Your task to perform on an android device: open app "LiveIn - Share Your Moment" Image 0: 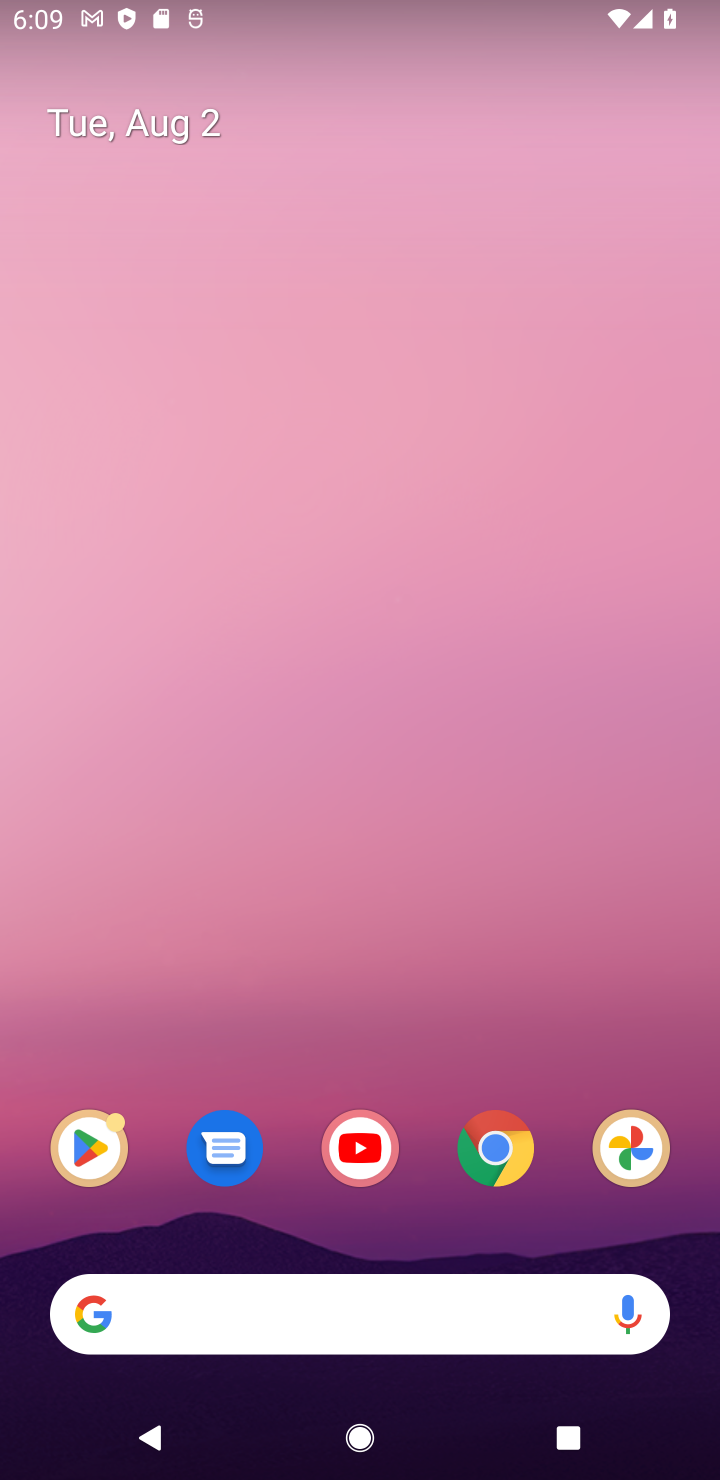
Step 0: drag from (670, 1000) to (422, 76)
Your task to perform on an android device: open app "LiveIn - Share Your Moment" Image 1: 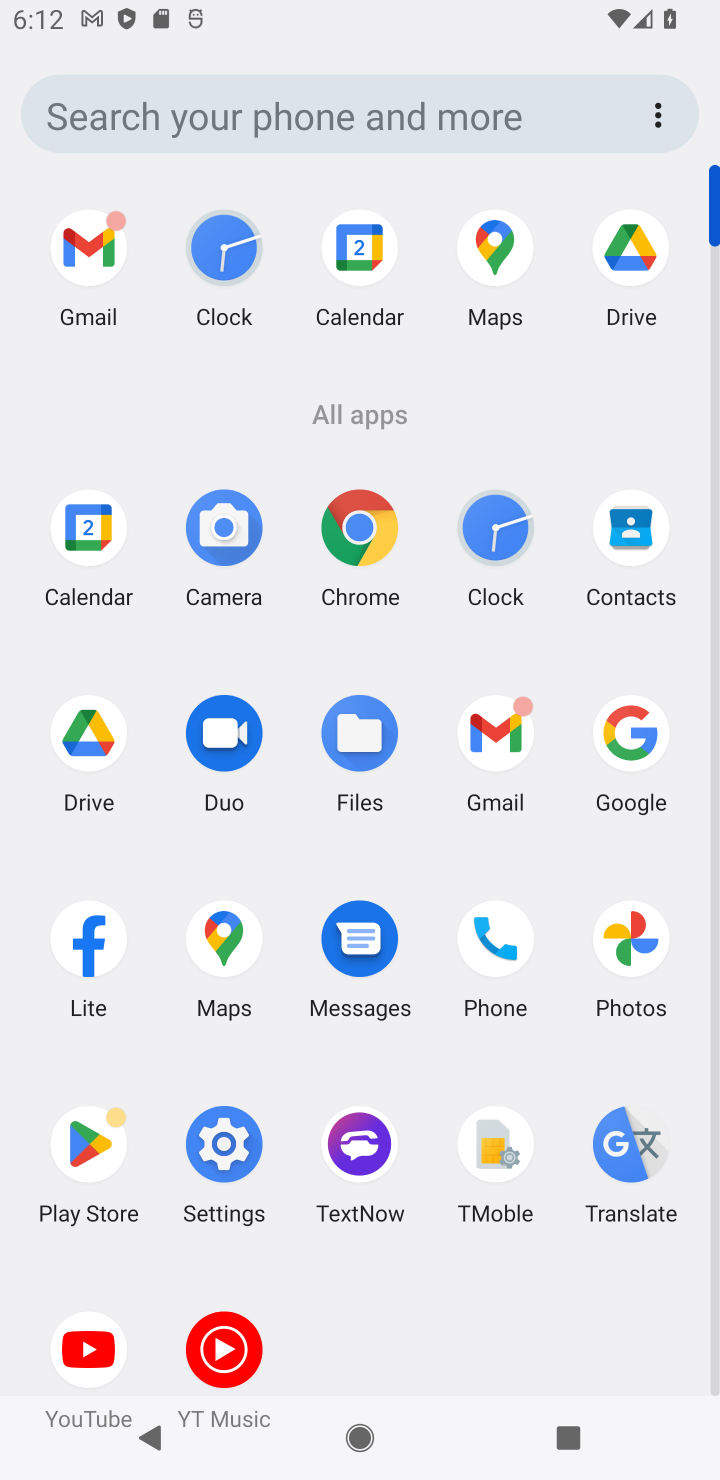
Step 1: click (66, 1153)
Your task to perform on an android device: open app "LiveIn - Share Your Moment" Image 2: 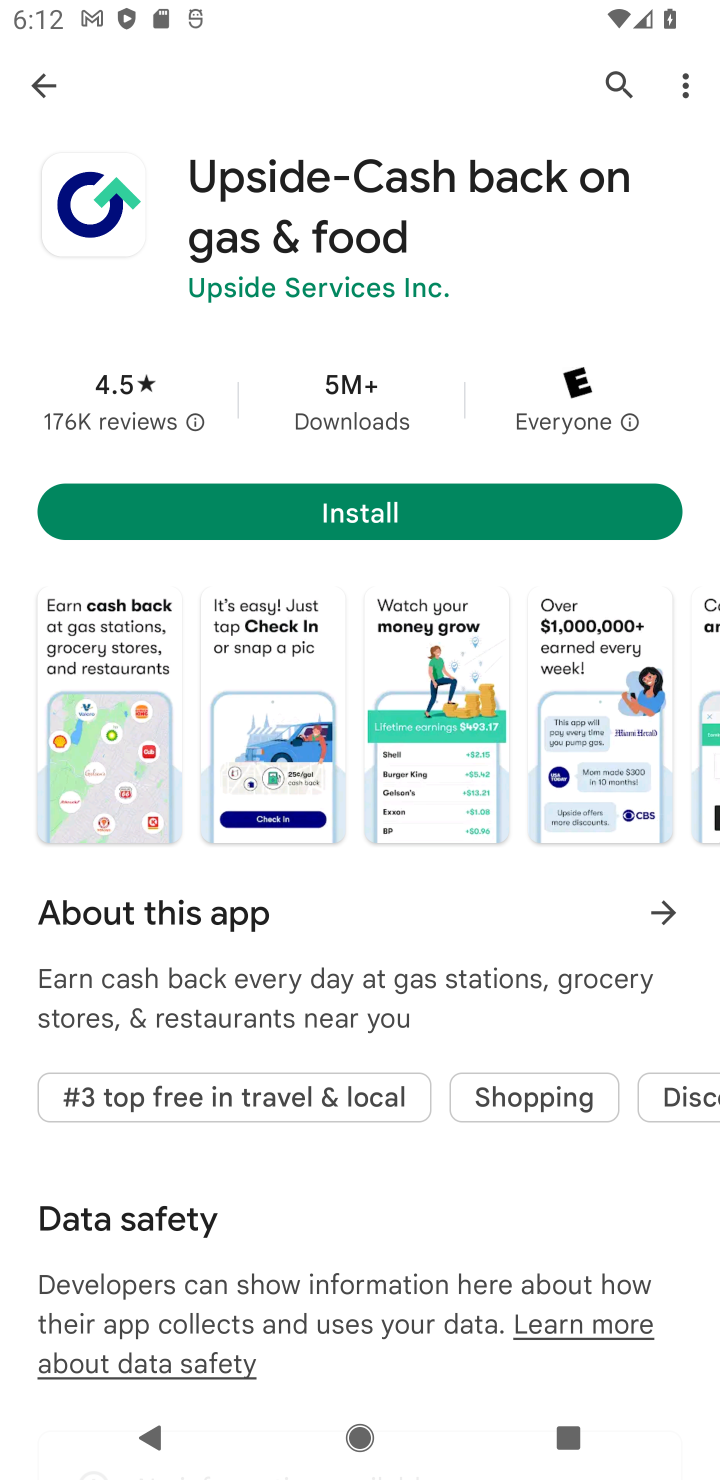
Step 2: press back button
Your task to perform on an android device: open app "LiveIn - Share Your Moment" Image 3: 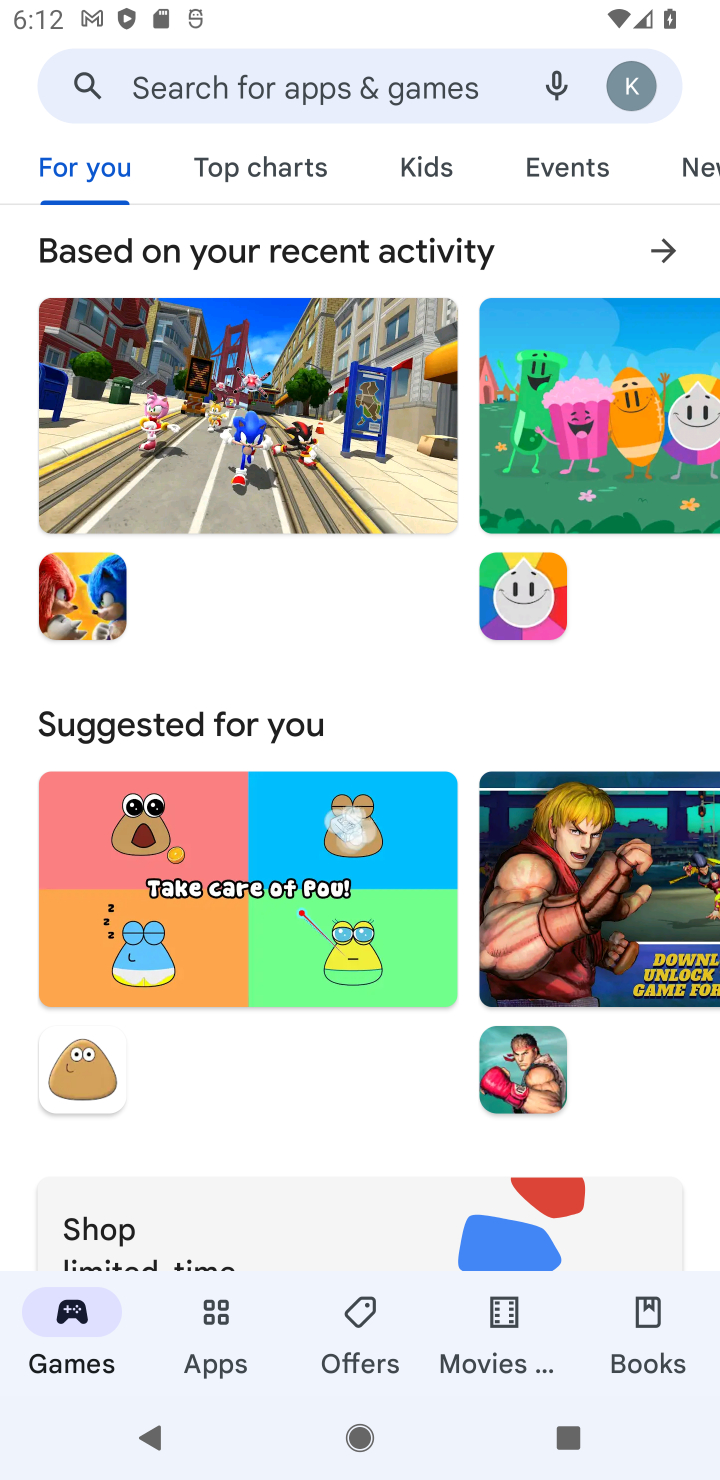
Step 3: click (213, 74)
Your task to perform on an android device: open app "LiveIn - Share Your Moment" Image 4: 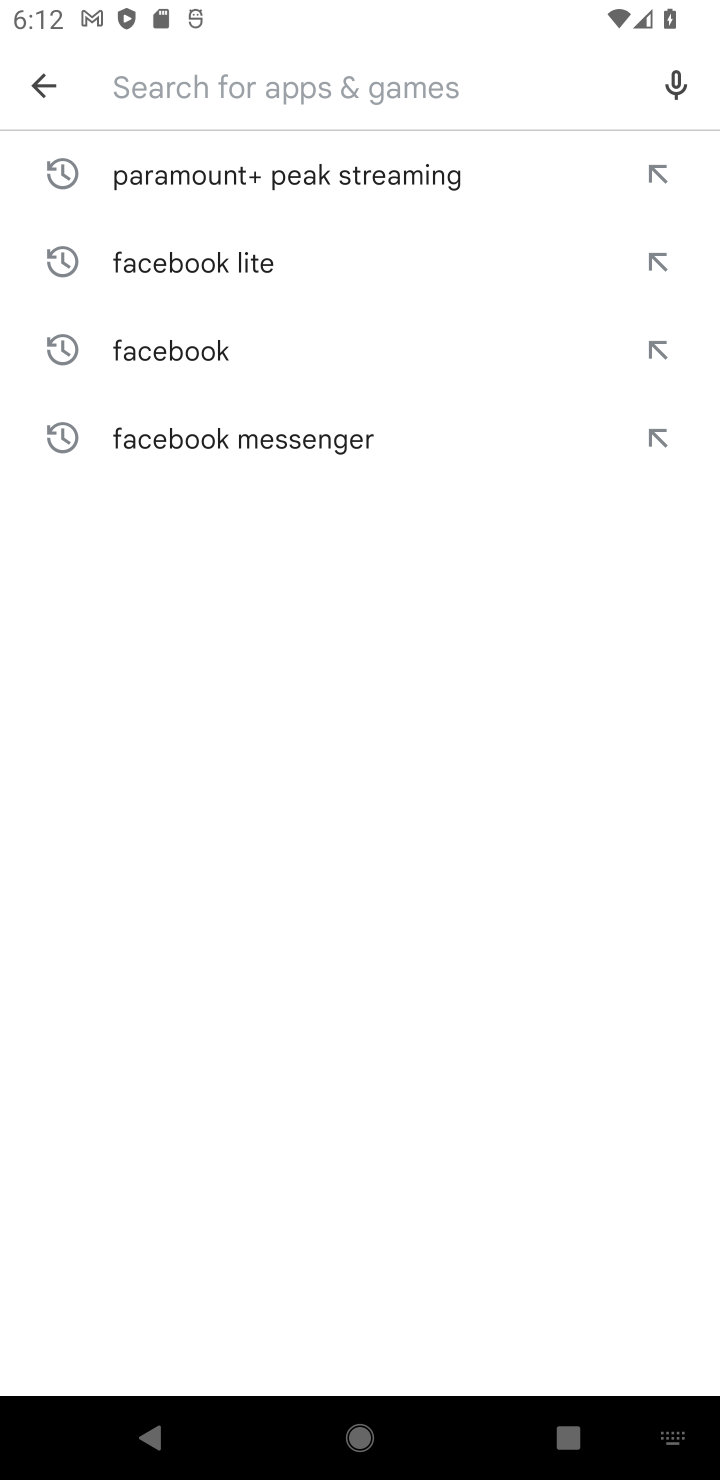
Step 4: type "LiveIn - Share Your Moment"
Your task to perform on an android device: open app "LiveIn - Share Your Moment" Image 5: 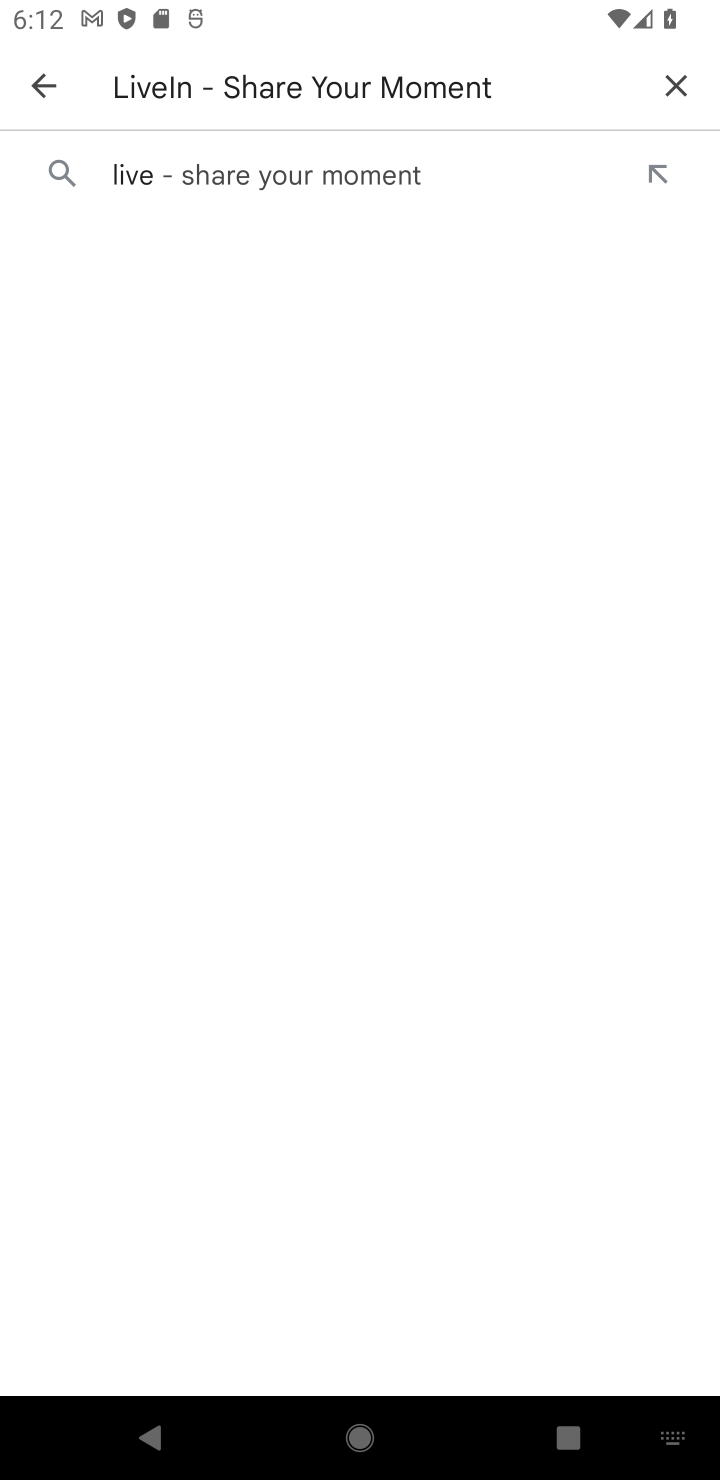
Step 5: click (256, 169)
Your task to perform on an android device: open app "LiveIn - Share Your Moment" Image 6: 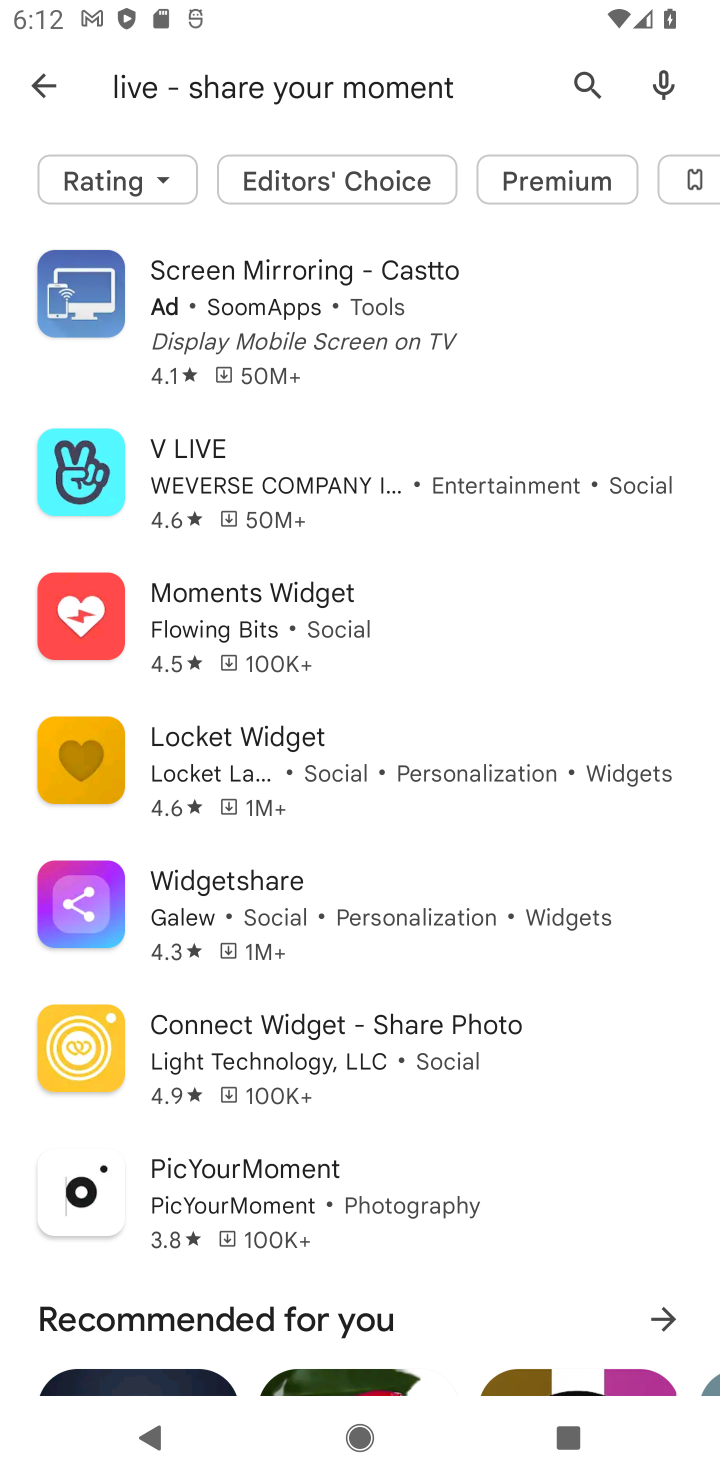
Step 6: task complete